Your task to perform on an android device: Open the map Image 0: 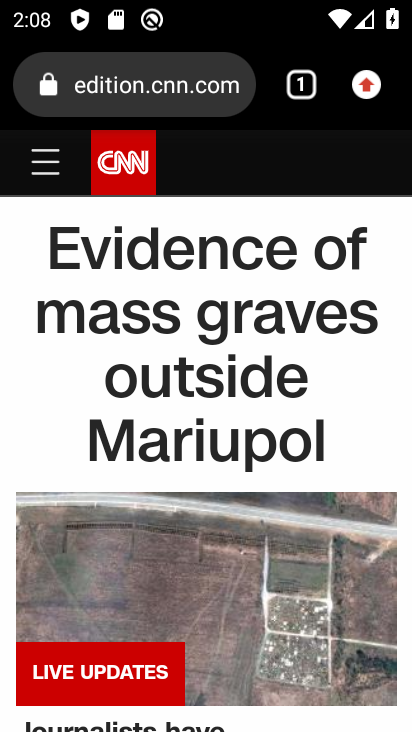
Step 0: press home button
Your task to perform on an android device: Open the map Image 1: 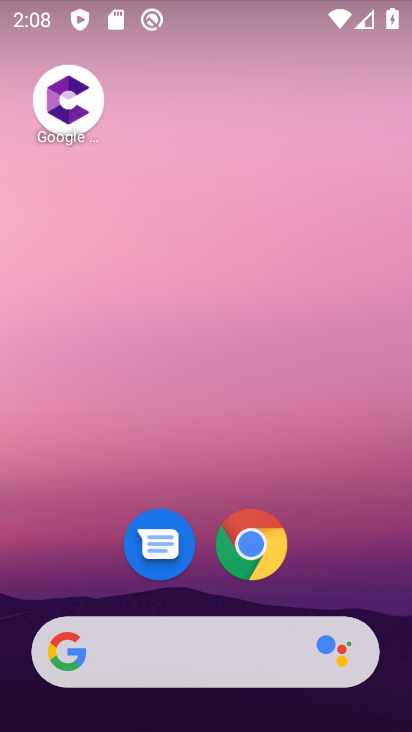
Step 1: drag from (58, 434) to (378, 410)
Your task to perform on an android device: Open the map Image 2: 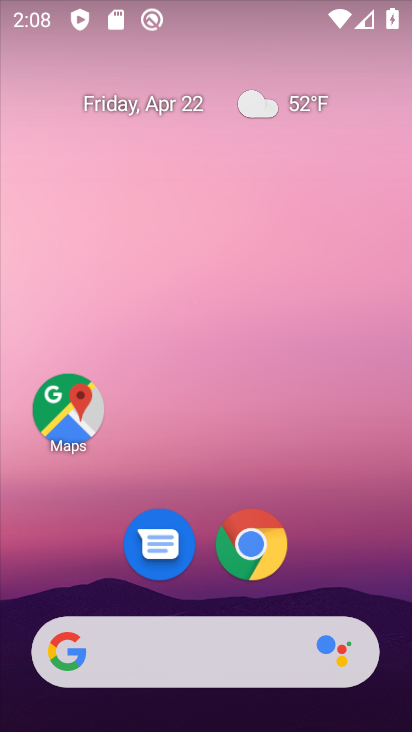
Step 2: click (67, 425)
Your task to perform on an android device: Open the map Image 3: 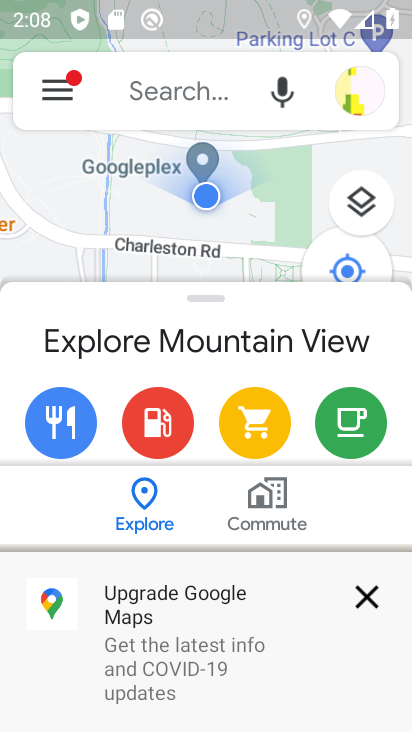
Step 3: task complete